Your task to perform on an android device: What's on the menu at Papa Murphy's? Image 0: 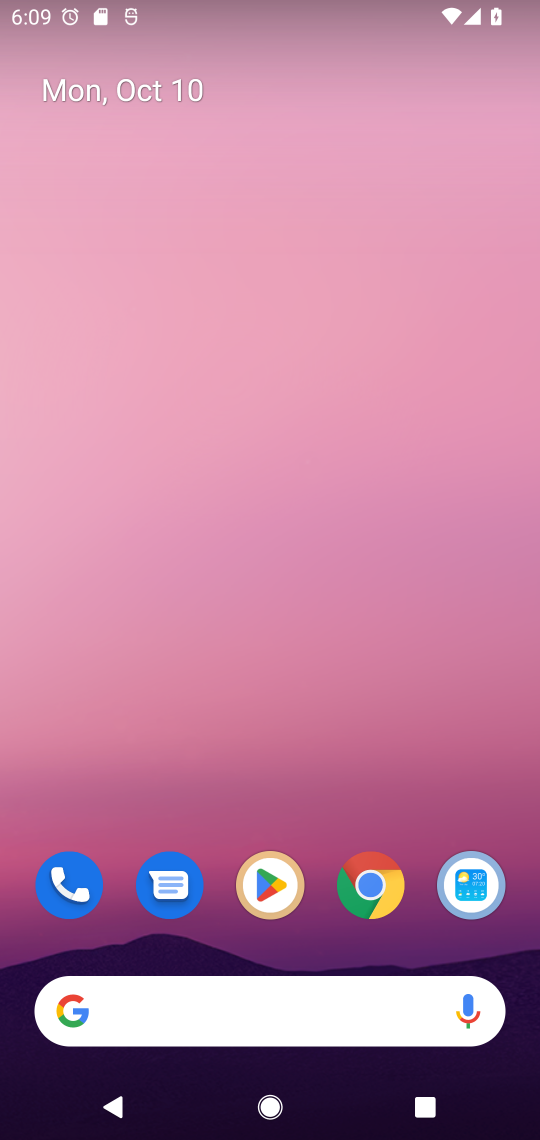
Step 0: click (370, 888)
Your task to perform on an android device: What's on the menu at Papa Murphy's? Image 1: 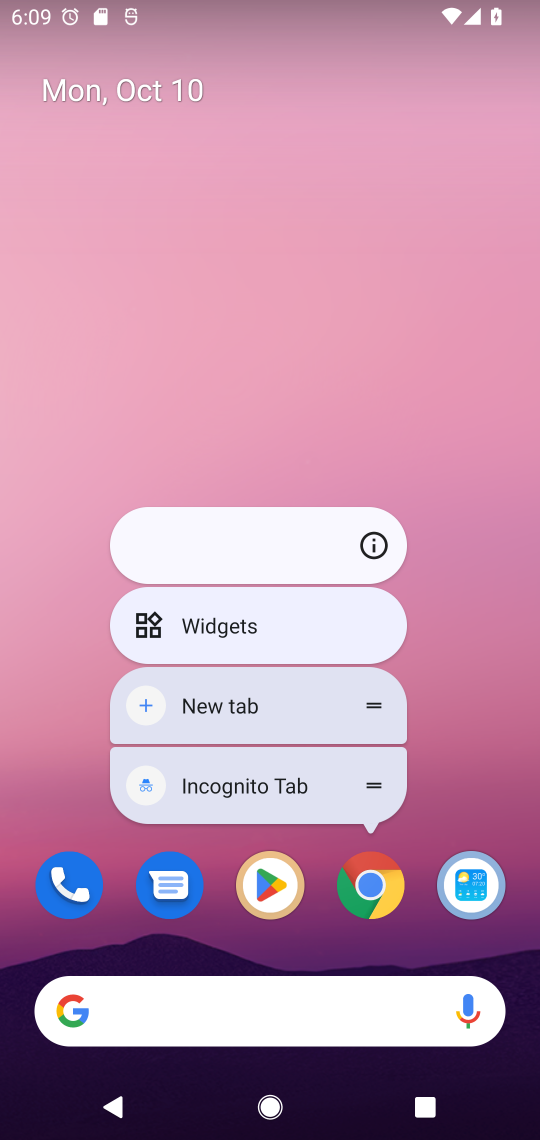
Step 1: click (382, 893)
Your task to perform on an android device: What's on the menu at Papa Murphy's? Image 2: 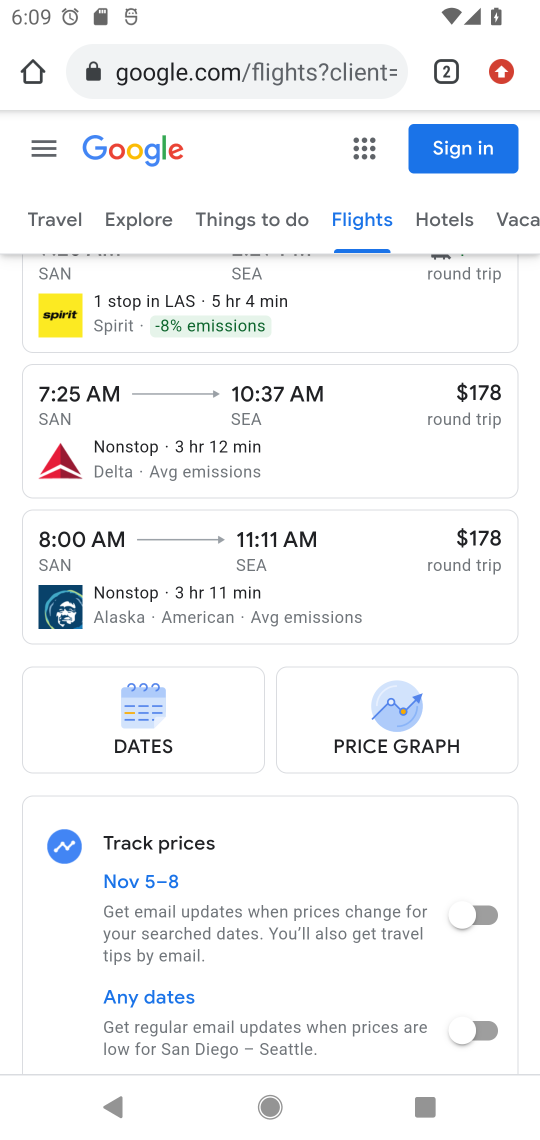
Step 2: click (203, 61)
Your task to perform on an android device: What's on the menu at Papa Murphy's? Image 3: 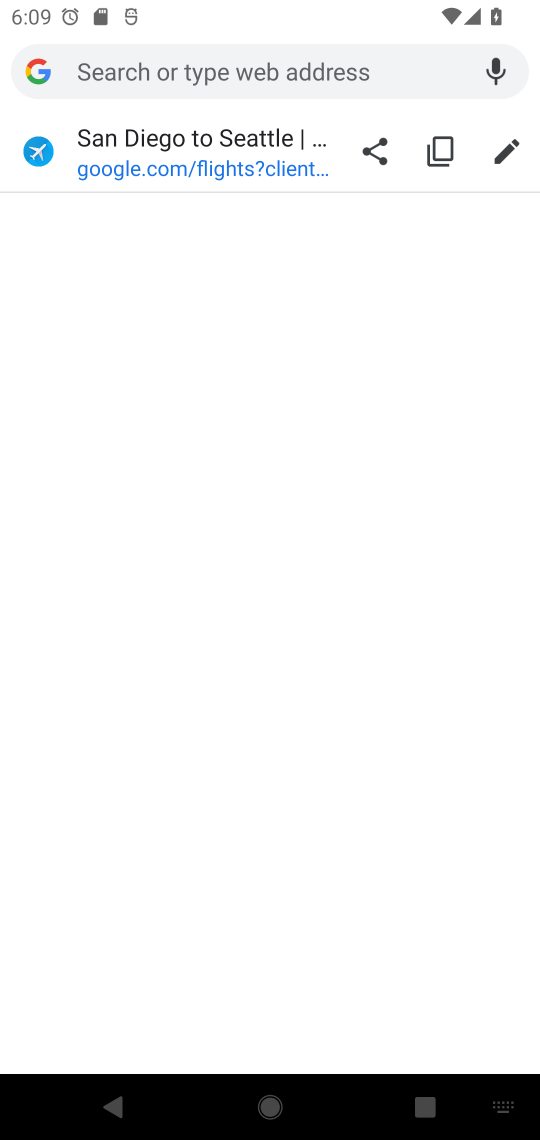
Step 3: type "menu at Papa Murphy's"
Your task to perform on an android device: What's on the menu at Papa Murphy's? Image 4: 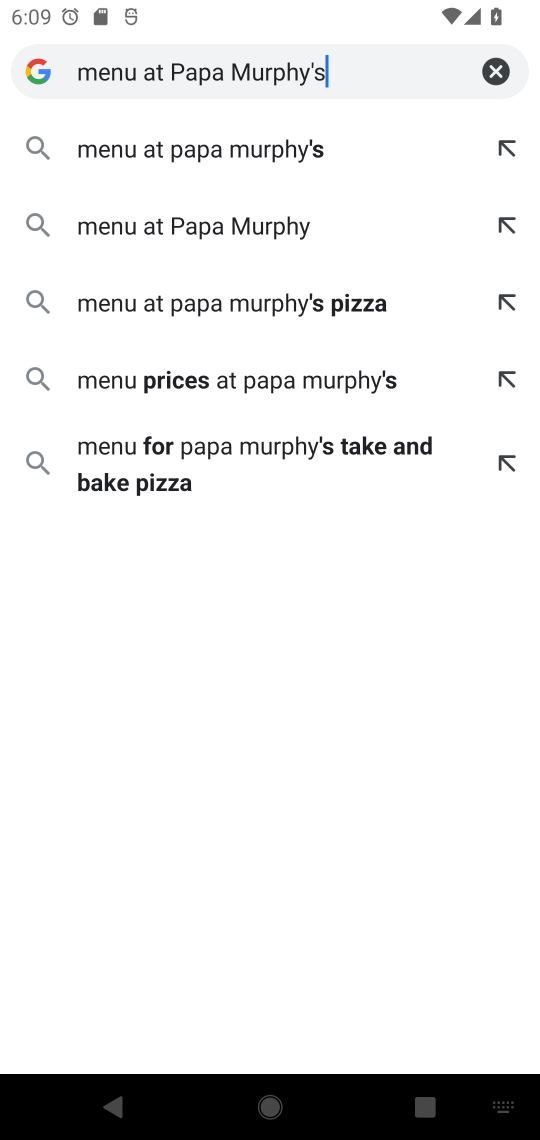
Step 4: type ""
Your task to perform on an android device: What's on the menu at Papa Murphy's? Image 5: 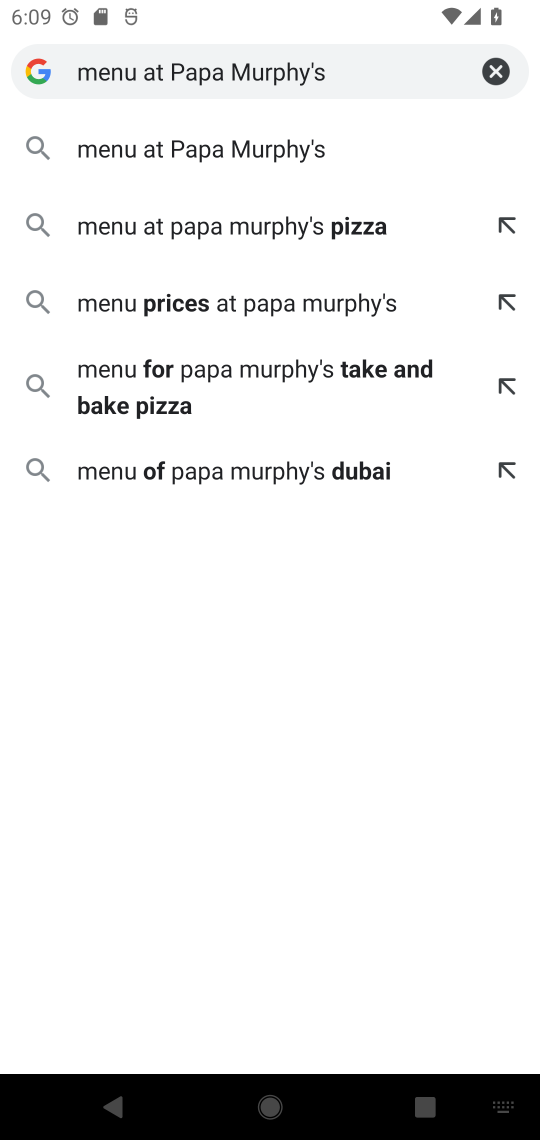
Step 5: click (246, 128)
Your task to perform on an android device: What's on the menu at Papa Murphy's? Image 6: 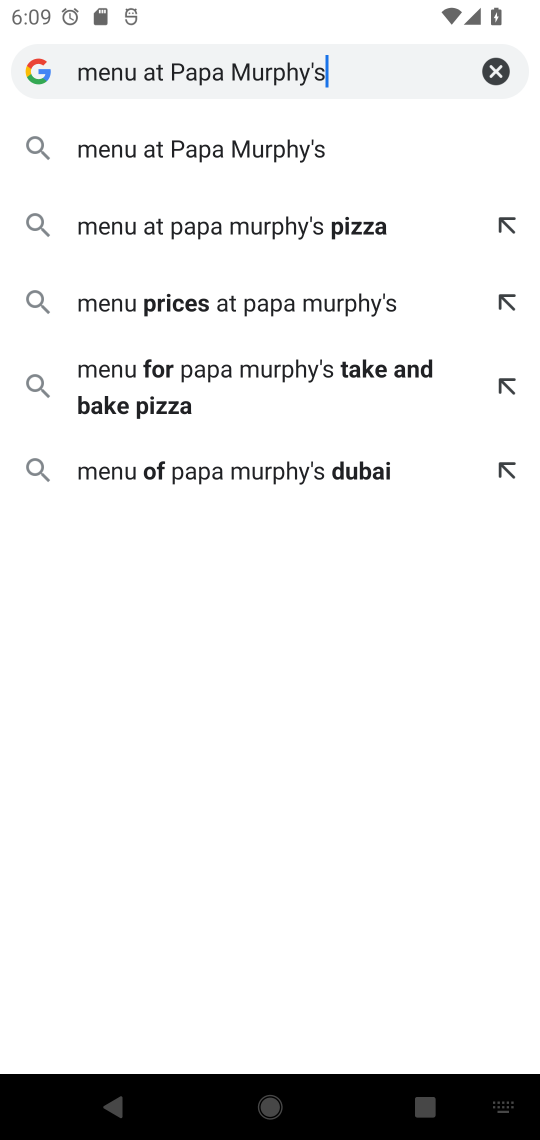
Step 6: click (235, 150)
Your task to perform on an android device: What's on the menu at Papa Murphy's? Image 7: 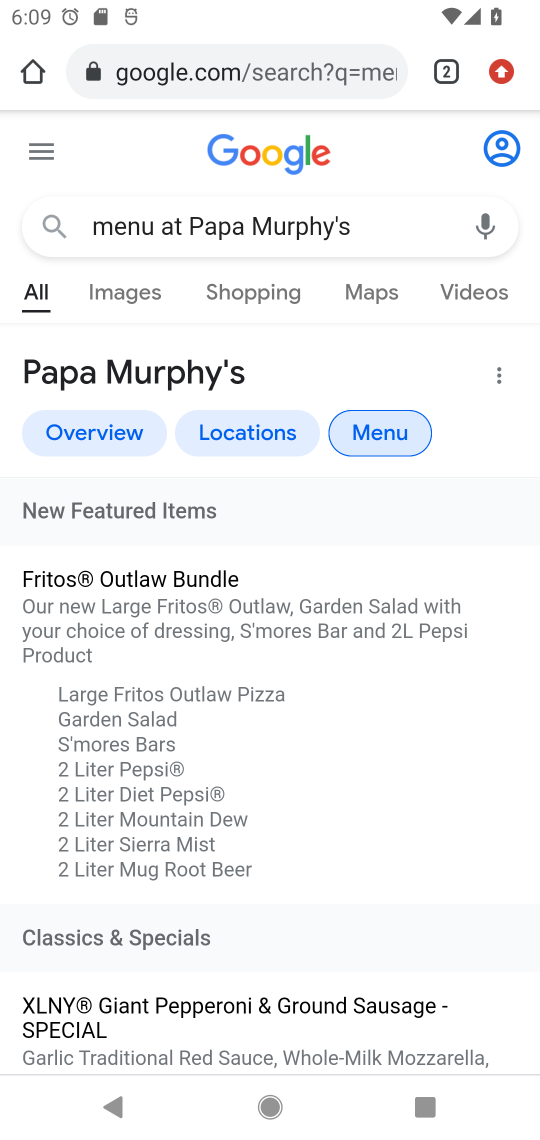
Step 7: drag from (254, 841) to (223, 334)
Your task to perform on an android device: What's on the menu at Papa Murphy's? Image 8: 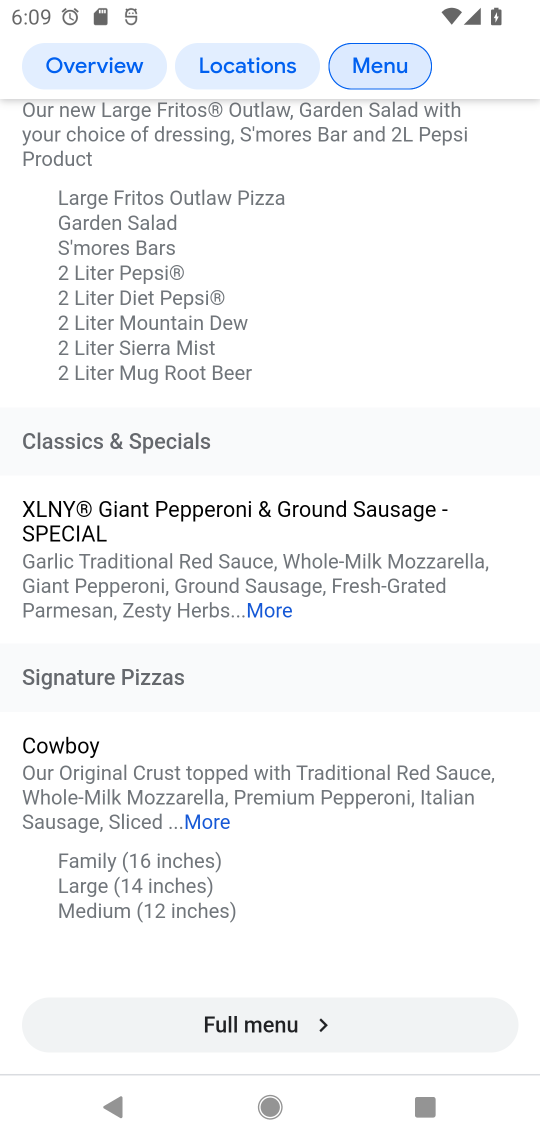
Step 8: click (271, 1019)
Your task to perform on an android device: What's on the menu at Papa Murphy's? Image 9: 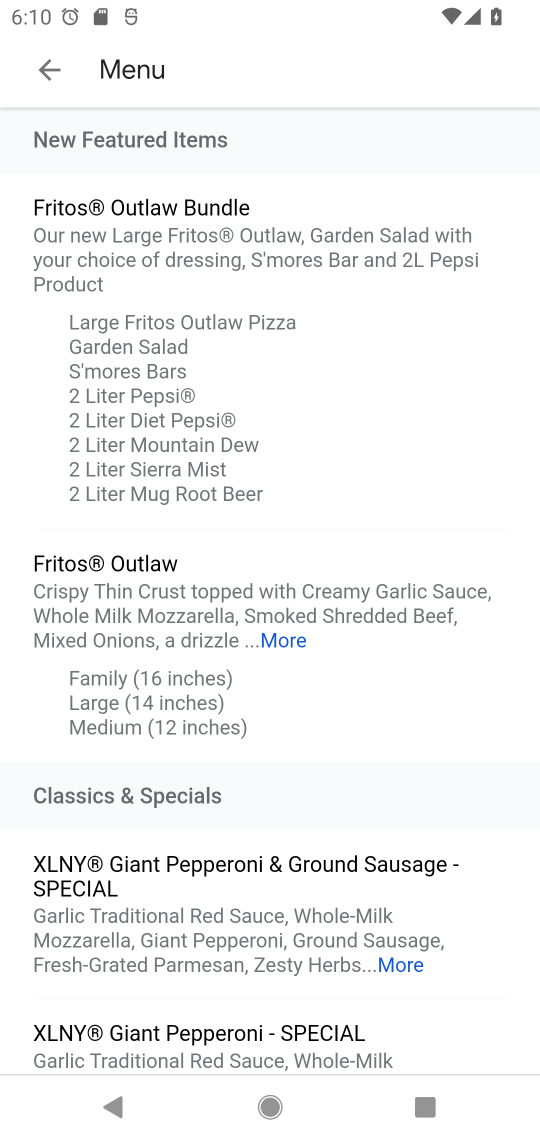
Step 9: task complete